Your task to perform on an android device: turn smart compose on in the gmail app Image 0: 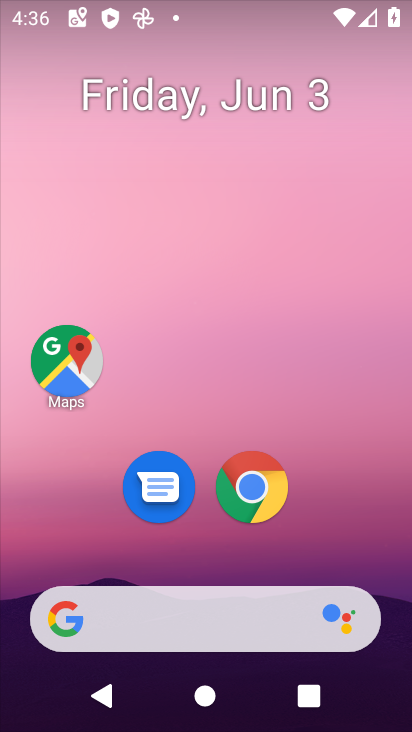
Step 0: click (276, 471)
Your task to perform on an android device: turn smart compose on in the gmail app Image 1: 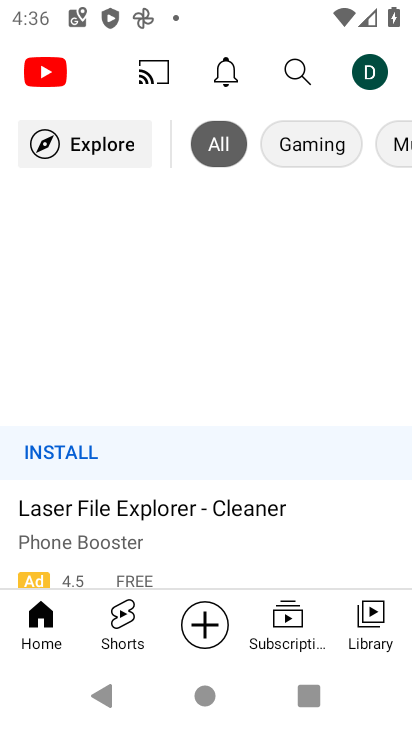
Step 1: press home button
Your task to perform on an android device: turn smart compose on in the gmail app Image 2: 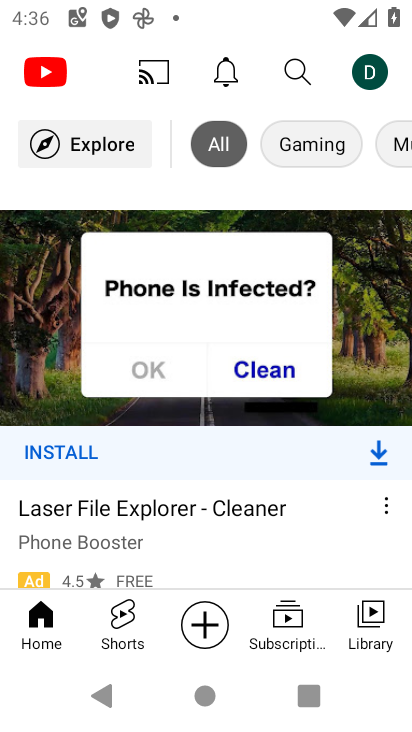
Step 2: press home button
Your task to perform on an android device: turn smart compose on in the gmail app Image 3: 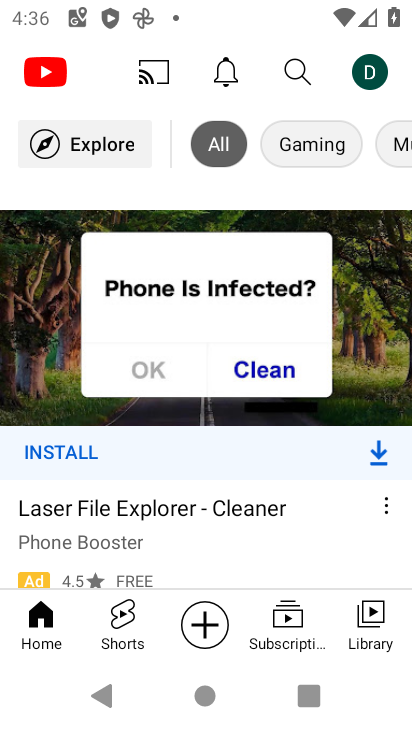
Step 3: click (228, 54)
Your task to perform on an android device: turn smart compose on in the gmail app Image 4: 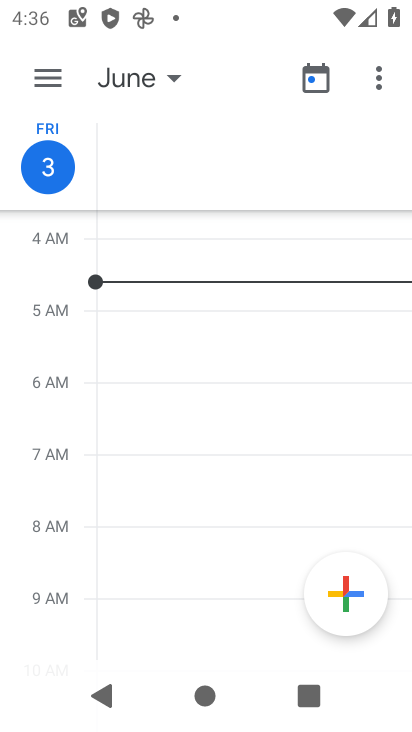
Step 4: drag from (189, 552) to (313, 109)
Your task to perform on an android device: turn smart compose on in the gmail app Image 5: 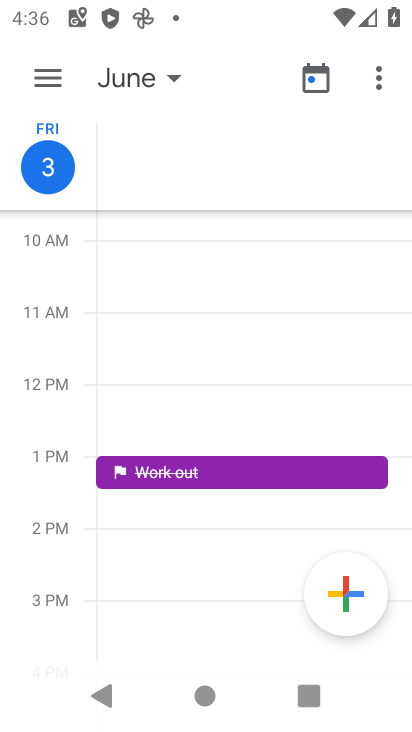
Step 5: press home button
Your task to perform on an android device: turn smart compose on in the gmail app Image 6: 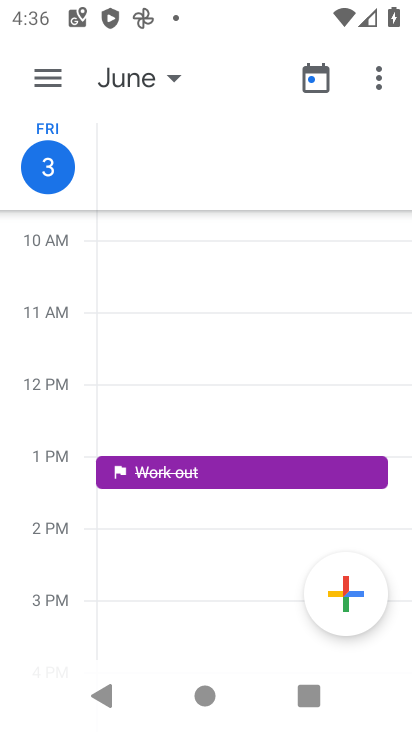
Step 6: drag from (189, 539) to (243, 117)
Your task to perform on an android device: turn smart compose on in the gmail app Image 7: 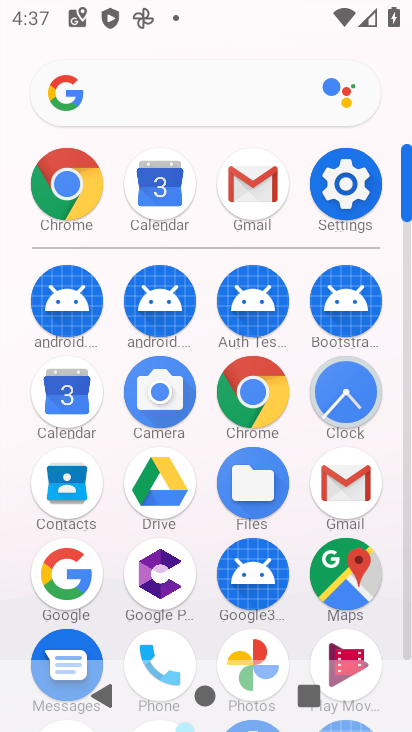
Step 7: click (335, 460)
Your task to perform on an android device: turn smart compose on in the gmail app Image 8: 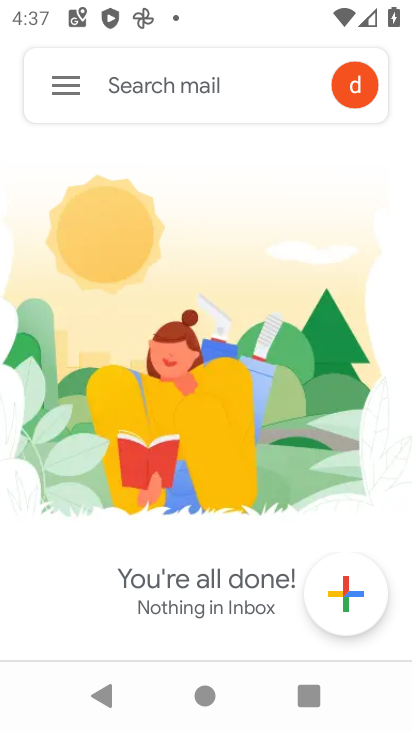
Step 8: click (67, 82)
Your task to perform on an android device: turn smart compose on in the gmail app Image 9: 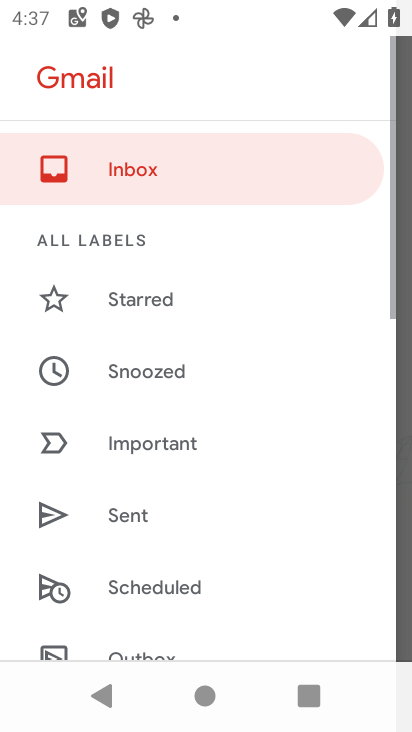
Step 9: drag from (155, 509) to (290, 2)
Your task to perform on an android device: turn smart compose on in the gmail app Image 10: 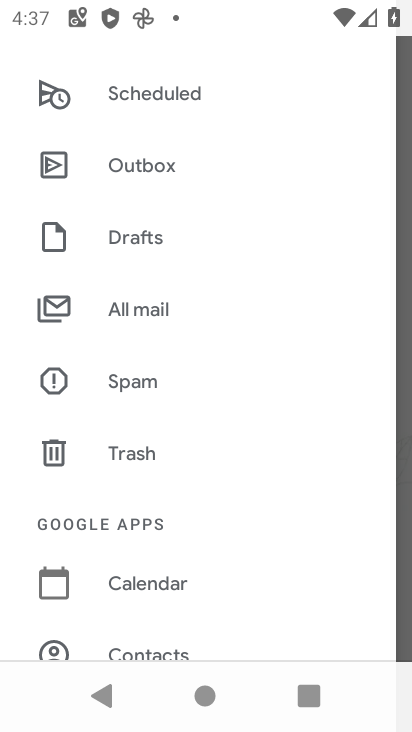
Step 10: drag from (187, 590) to (234, 77)
Your task to perform on an android device: turn smart compose on in the gmail app Image 11: 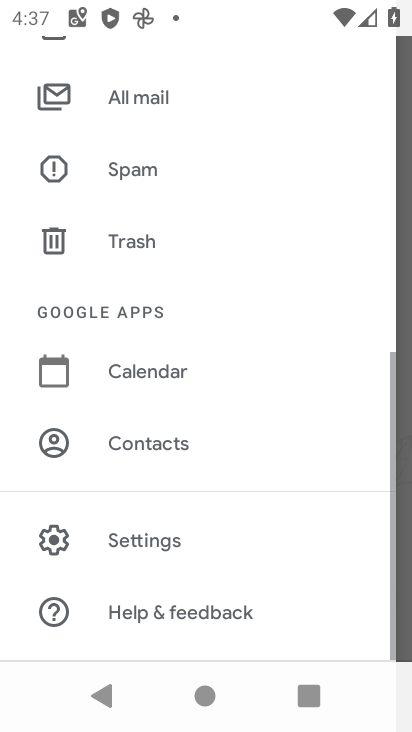
Step 11: click (165, 556)
Your task to perform on an android device: turn smart compose on in the gmail app Image 12: 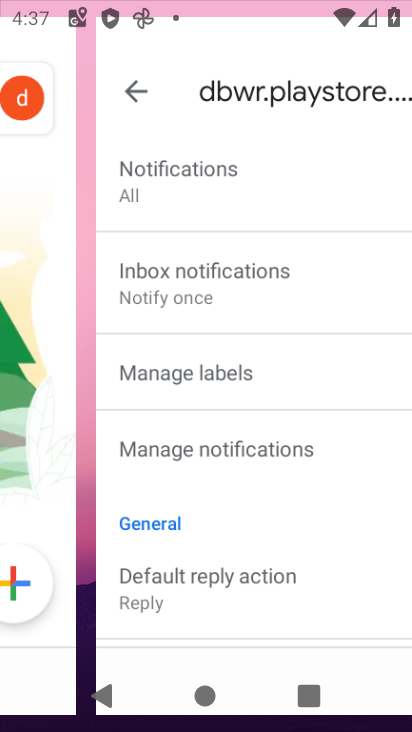
Step 12: task complete